Your task to perform on an android device: Open Chrome and go to settings Image 0: 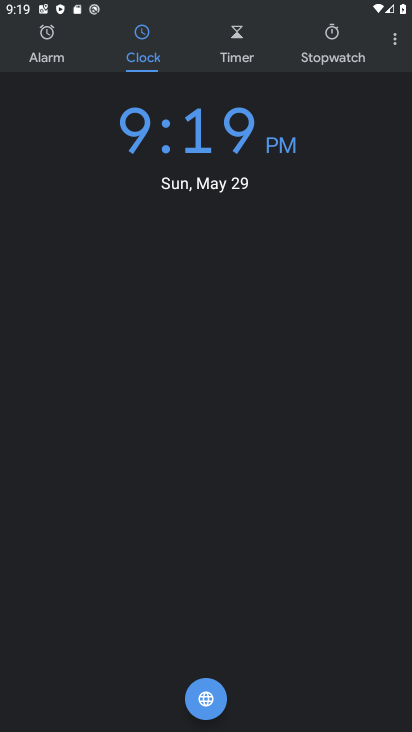
Step 0: press home button
Your task to perform on an android device: Open Chrome and go to settings Image 1: 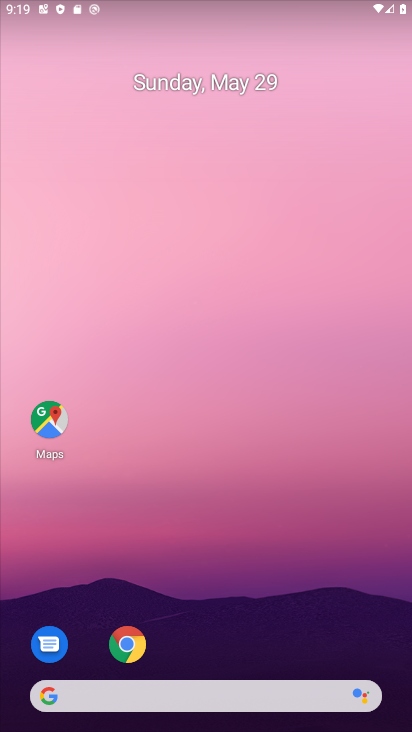
Step 1: drag from (239, 576) to (230, 261)
Your task to perform on an android device: Open Chrome and go to settings Image 2: 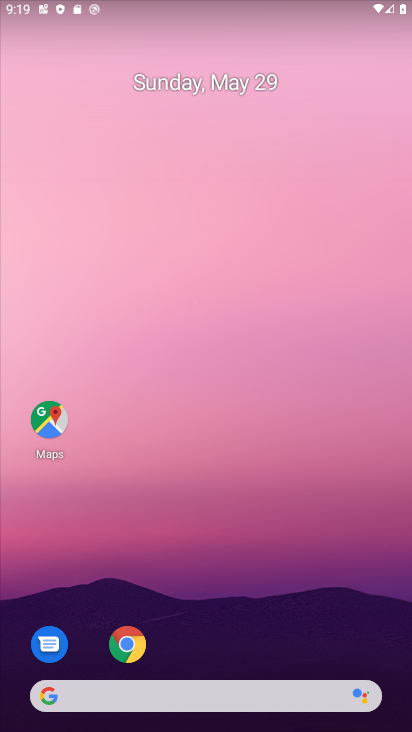
Step 2: drag from (219, 478) to (222, 309)
Your task to perform on an android device: Open Chrome and go to settings Image 3: 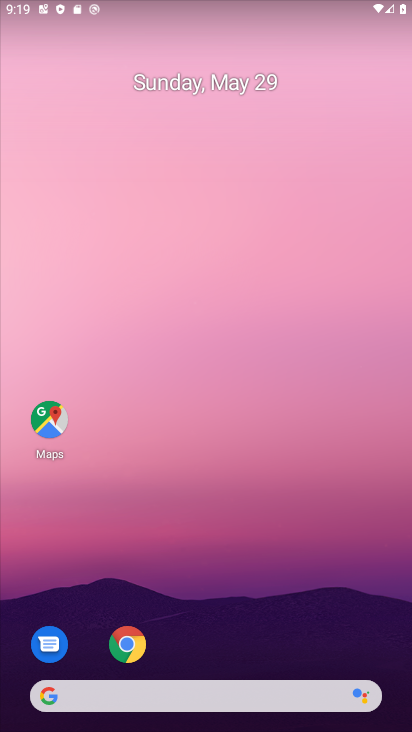
Step 3: drag from (216, 648) to (234, 133)
Your task to perform on an android device: Open Chrome and go to settings Image 4: 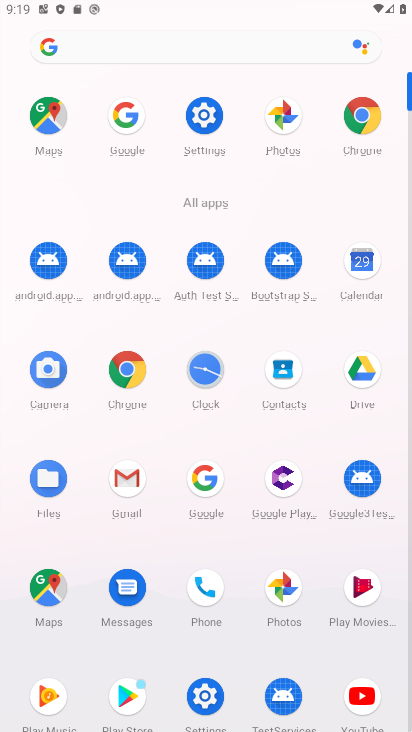
Step 4: click (204, 110)
Your task to perform on an android device: Open Chrome and go to settings Image 5: 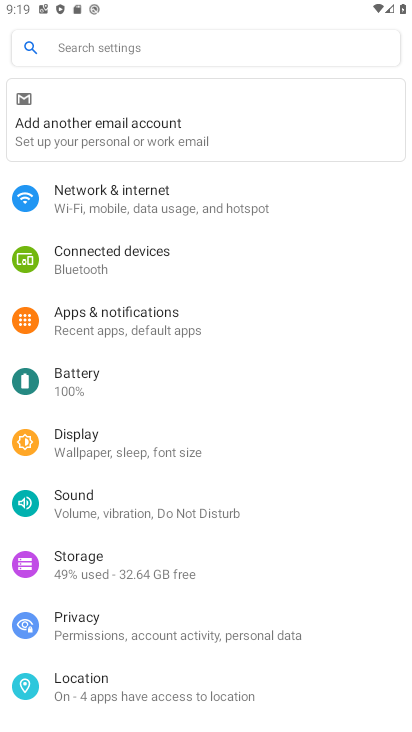
Step 5: press home button
Your task to perform on an android device: Open Chrome and go to settings Image 6: 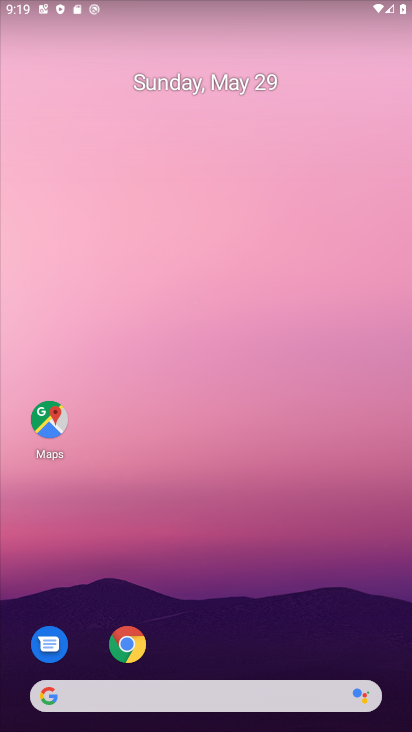
Step 6: click (122, 666)
Your task to perform on an android device: Open Chrome and go to settings Image 7: 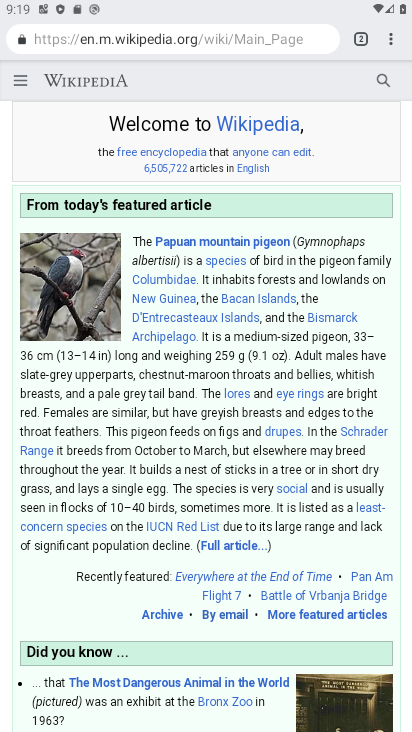
Step 7: click (383, 31)
Your task to perform on an android device: Open Chrome and go to settings Image 8: 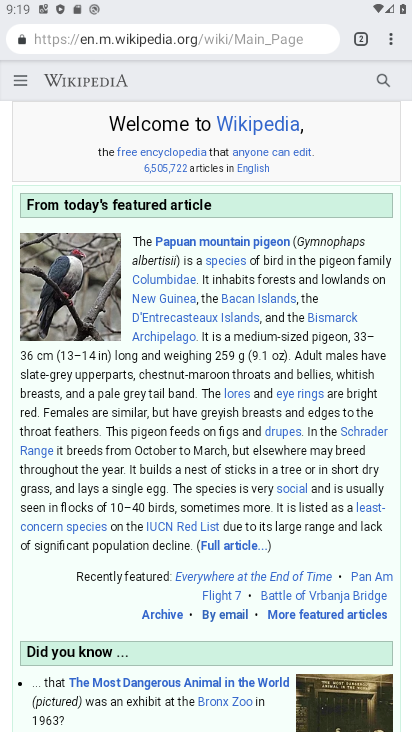
Step 8: click (397, 34)
Your task to perform on an android device: Open Chrome and go to settings Image 9: 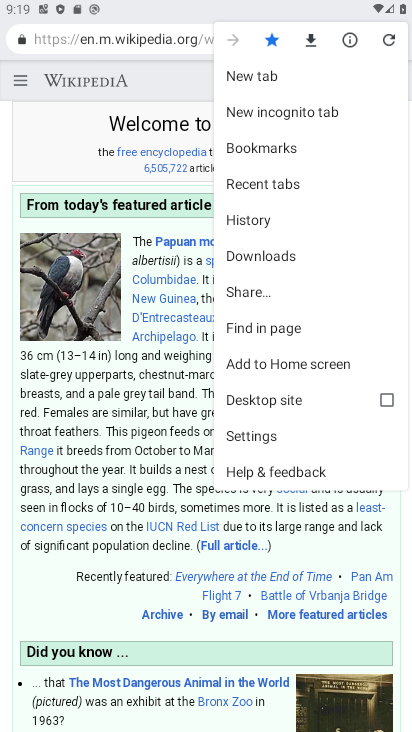
Step 9: click (258, 433)
Your task to perform on an android device: Open Chrome and go to settings Image 10: 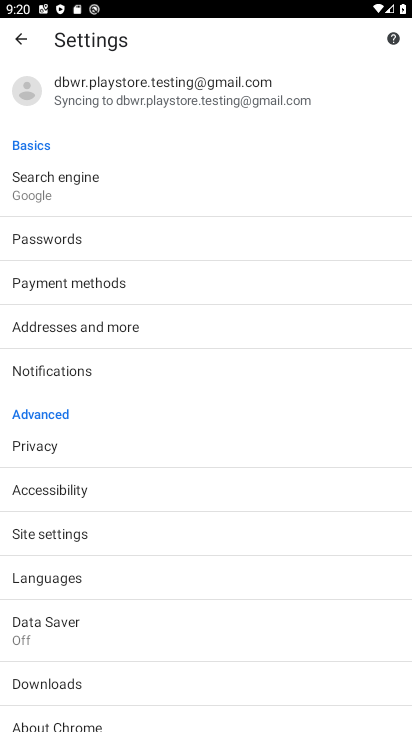
Step 10: task complete